Your task to perform on an android device: set an alarm Image 0: 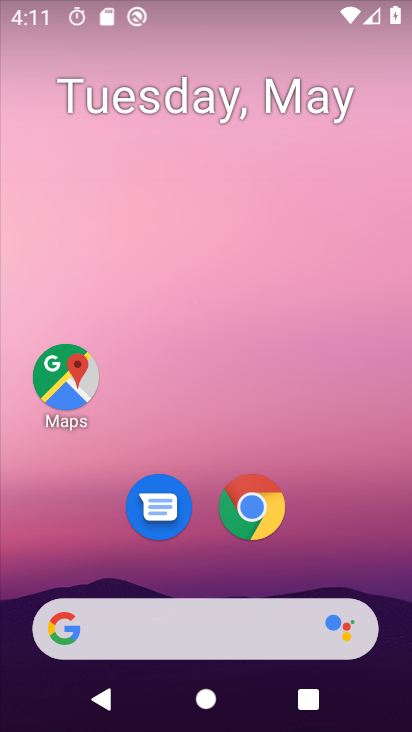
Step 0: drag from (208, 602) to (284, 57)
Your task to perform on an android device: set an alarm Image 1: 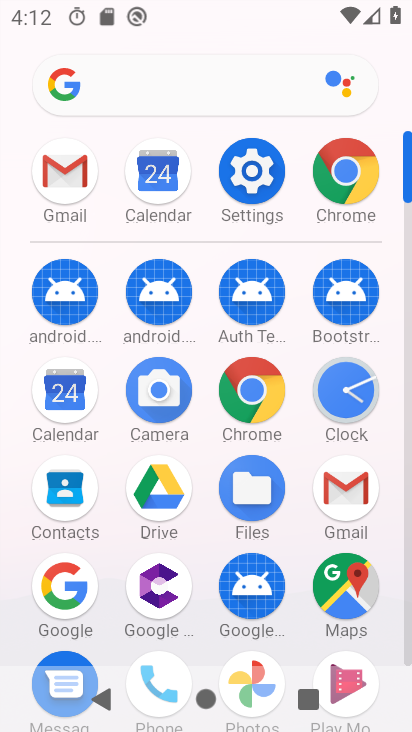
Step 1: click (324, 395)
Your task to perform on an android device: set an alarm Image 2: 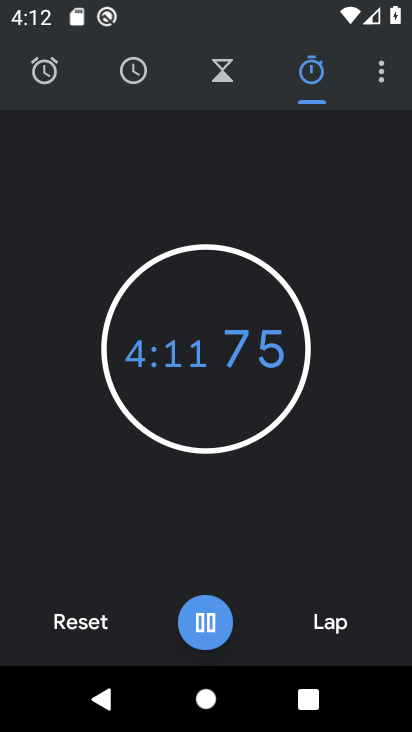
Step 2: click (52, 74)
Your task to perform on an android device: set an alarm Image 3: 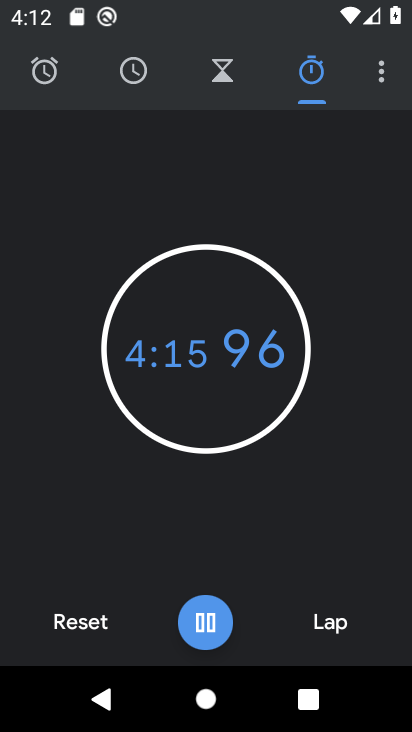
Step 3: click (34, 72)
Your task to perform on an android device: set an alarm Image 4: 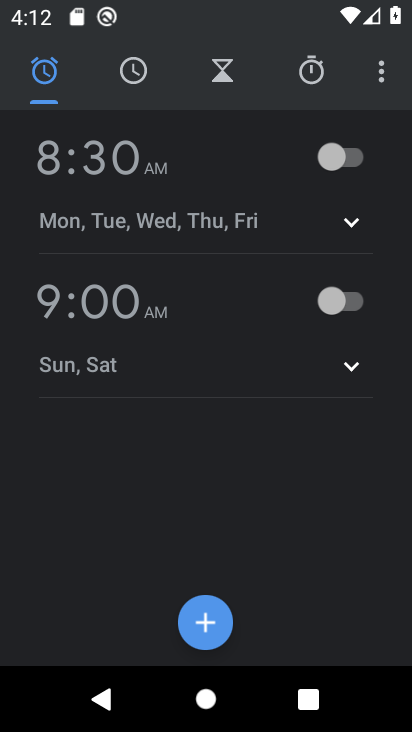
Step 4: click (210, 616)
Your task to perform on an android device: set an alarm Image 5: 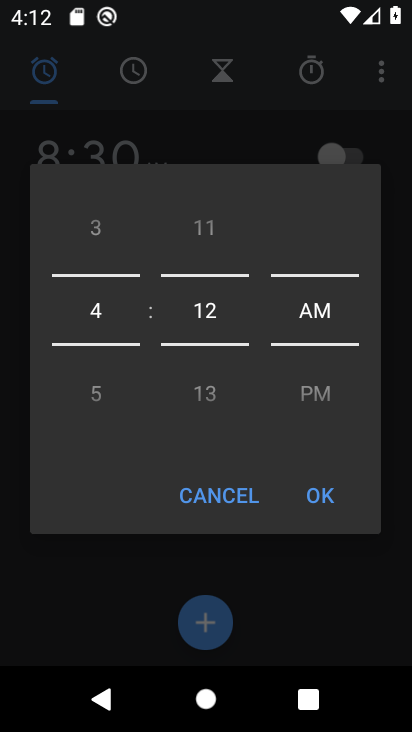
Step 5: click (324, 494)
Your task to perform on an android device: set an alarm Image 6: 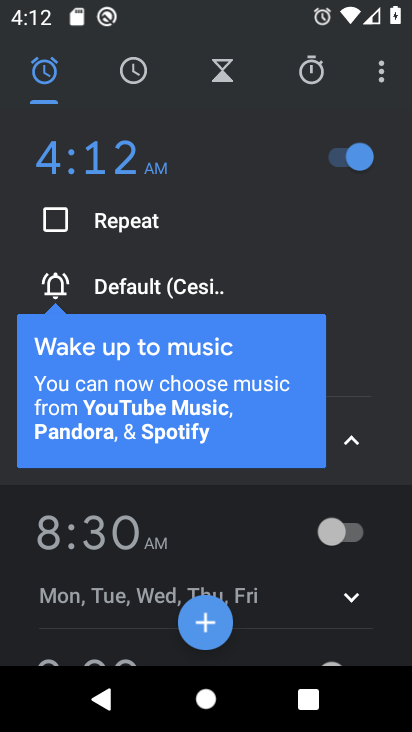
Step 6: click (346, 458)
Your task to perform on an android device: set an alarm Image 7: 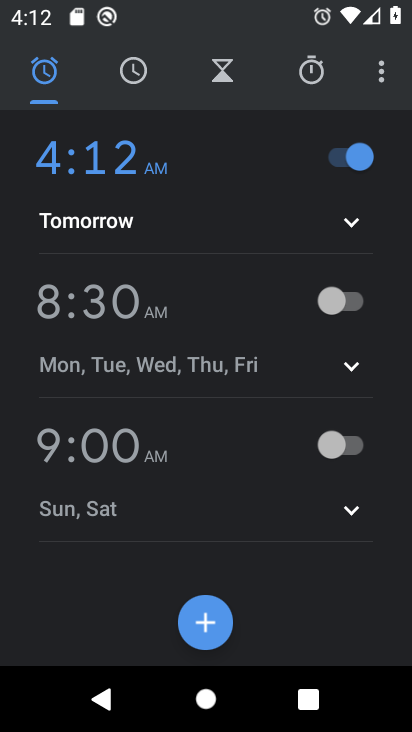
Step 7: task complete